Your task to perform on an android device: Go to Yahoo.com Image 0: 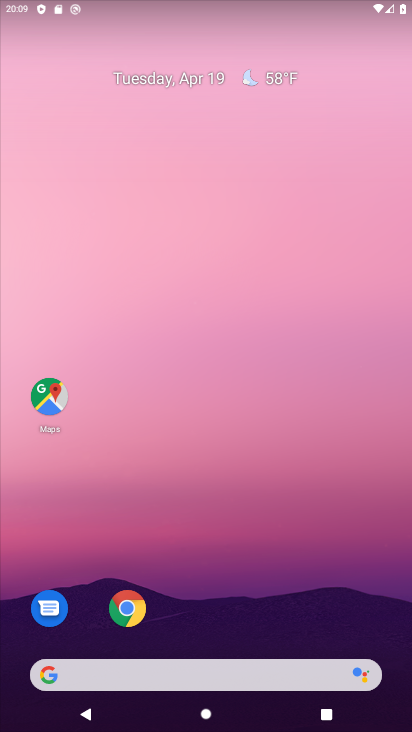
Step 0: click (124, 613)
Your task to perform on an android device: Go to Yahoo.com Image 1: 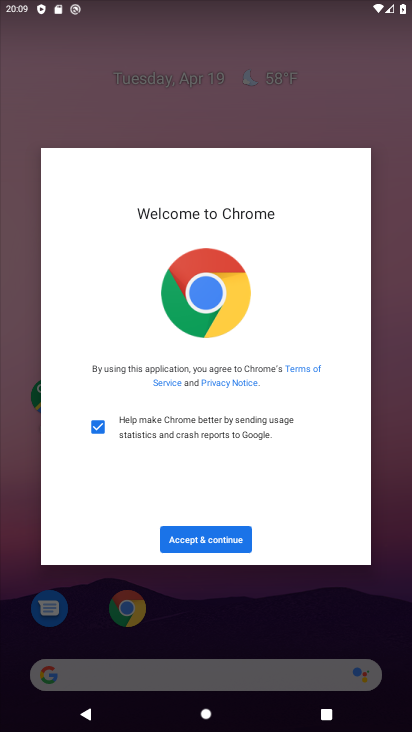
Step 1: click (206, 548)
Your task to perform on an android device: Go to Yahoo.com Image 2: 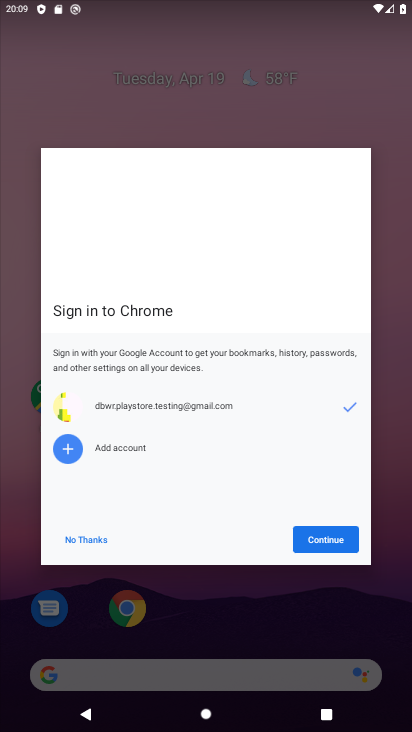
Step 2: click (327, 537)
Your task to perform on an android device: Go to Yahoo.com Image 3: 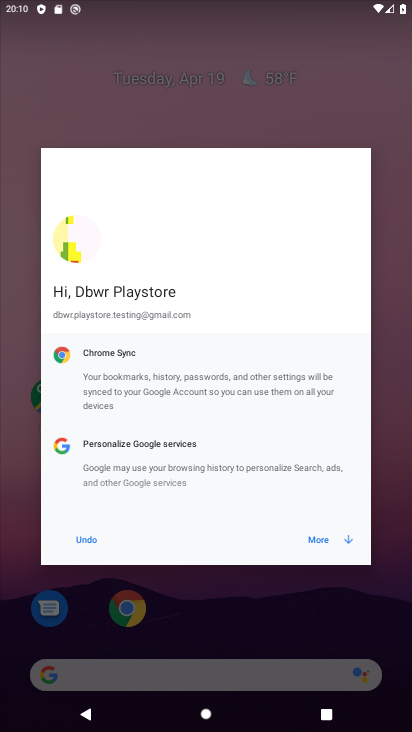
Step 3: click (327, 537)
Your task to perform on an android device: Go to Yahoo.com Image 4: 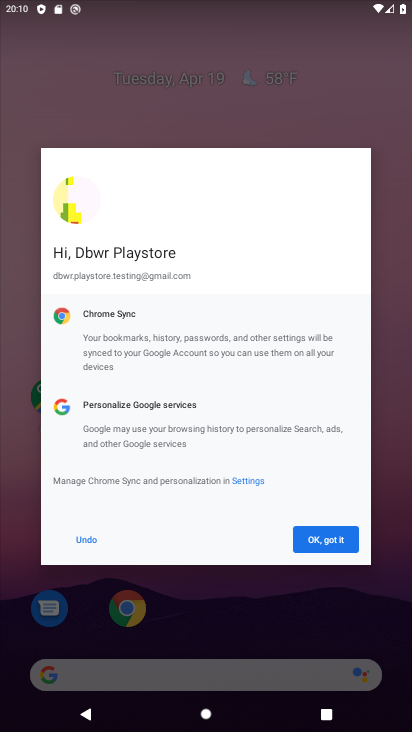
Step 4: click (327, 537)
Your task to perform on an android device: Go to Yahoo.com Image 5: 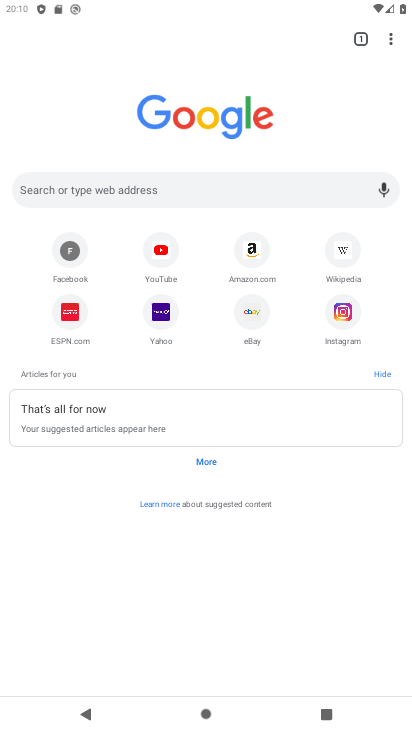
Step 5: click (214, 180)
Your task to perform on an android device: Go to Yahoo.com Image 6: 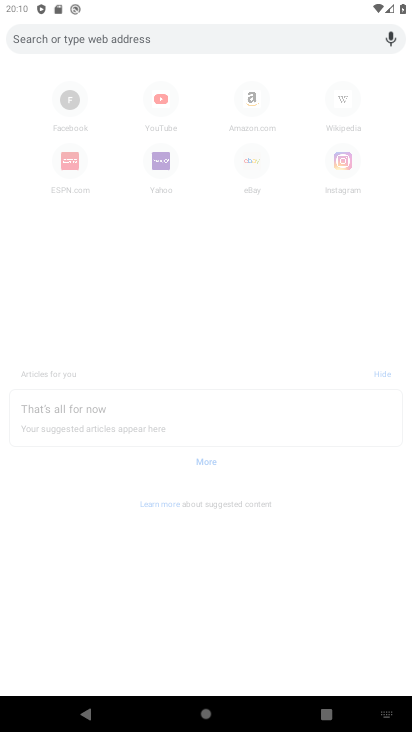
Step 6: type "Yahoo.com"
Your task to perform on an android device: Go to Yahoo.com Image 7: 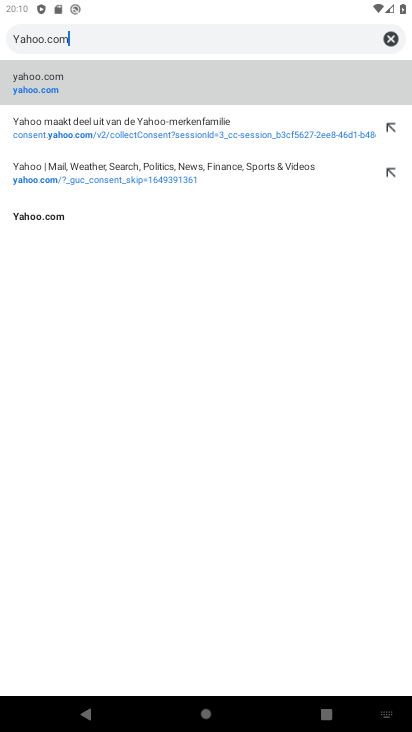
Step 7: type ""
Your task to perform on an android device: Go to Yahoo.com Image 8: 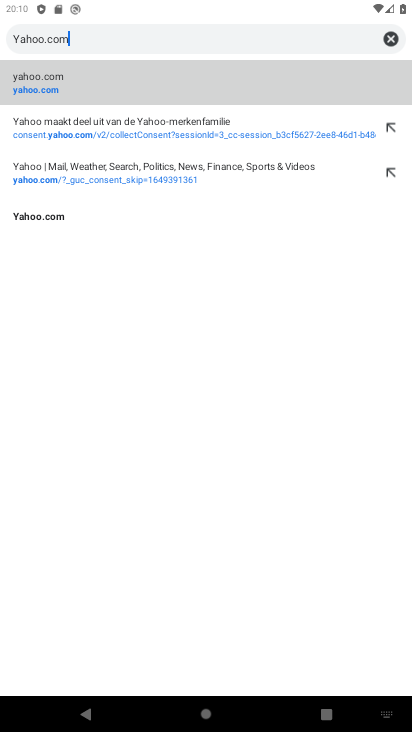
Step 8: click (44, 76)
Your task to perform on an android device: Go to Yahoo.com Image 9: 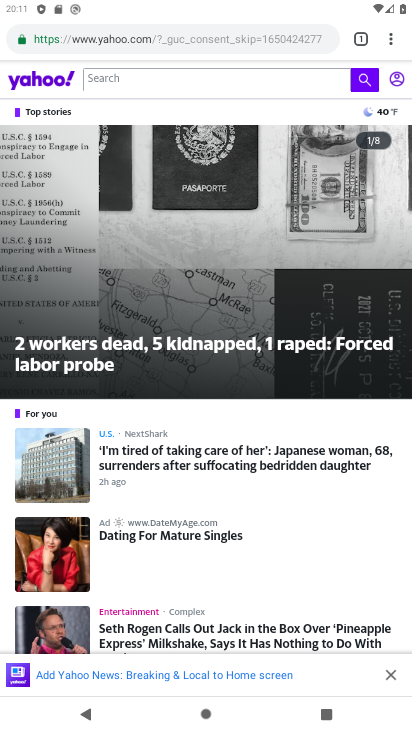
Step 9: task complete